Your task to perform on an android device: Go to Maps Image 0: 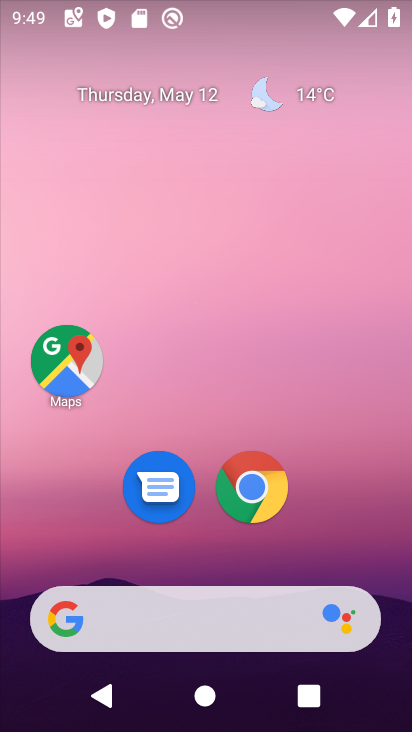
Step 0: click (51, 350)
Your task to perform on an android device: Go to Maps Image 1: 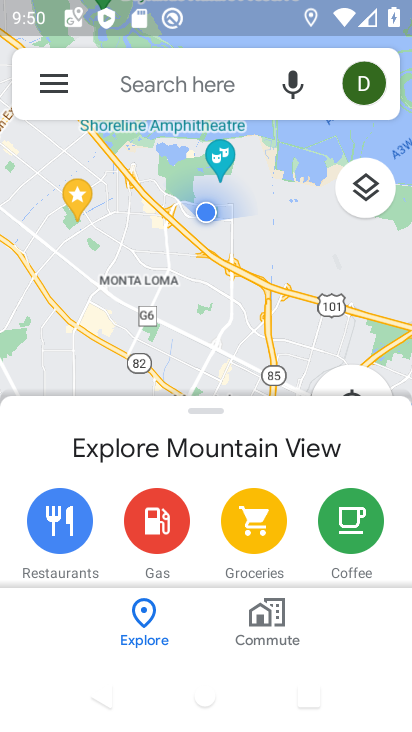
Step 1: task complete